Your task to perform on an android device: Is it going to rain today? Image 0: 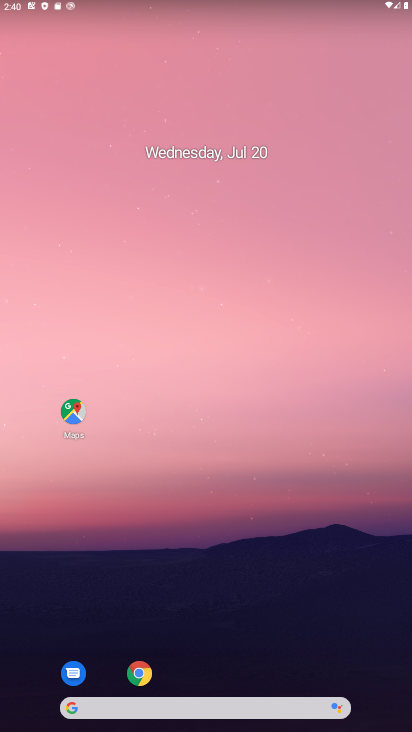
Step 0: drag from (269, 578) to (278, 193)
Your task to perform on an android device: Is it going to rain today? Image 1: 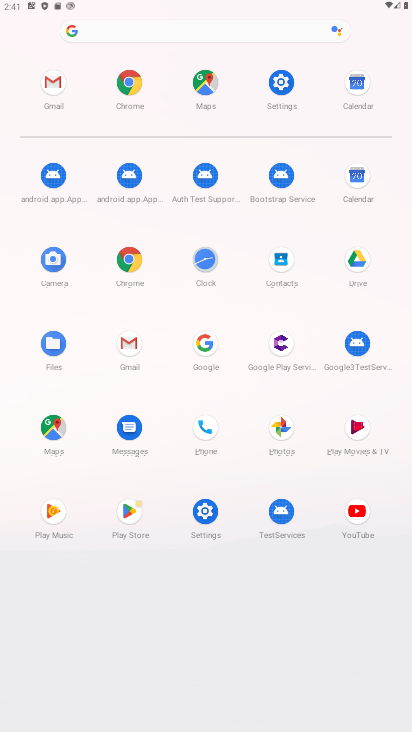
Step 1: click (263, 252)
Your task to perform on an android device: Is it going to rain today? Image 2: 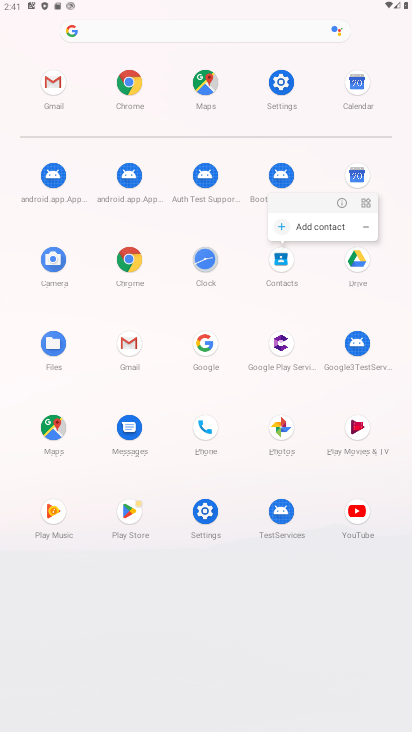
Step 2: click (260, 246)
Your task to perform on an android device: Is it going to rain today? Image 3: 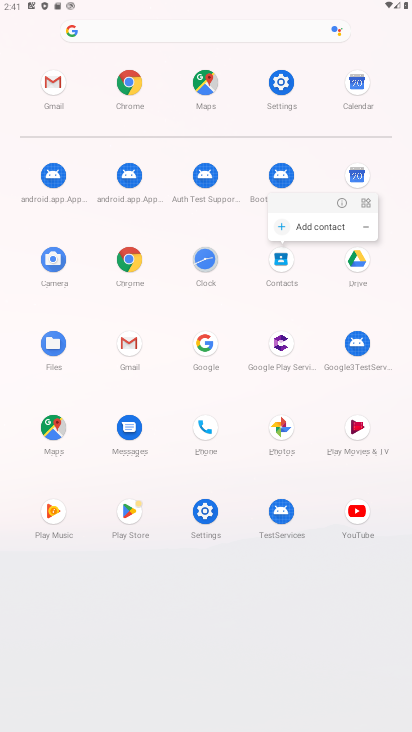
Step 3: drag from (156, 138) to (178, 561)
Your task to perform on an android device: Is it going to rain today? Image 4: 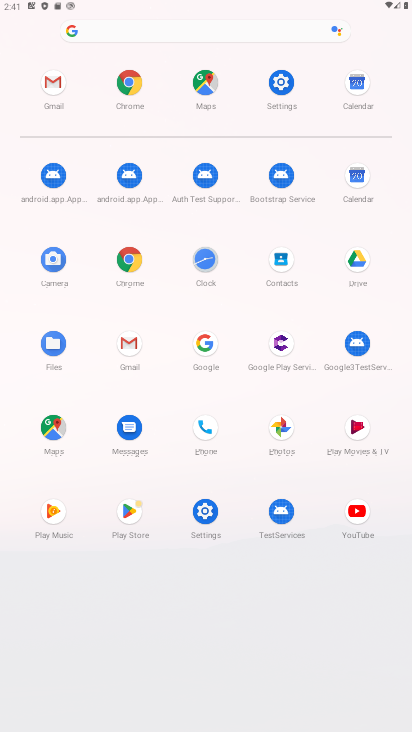
Step 4: press back button
Your task to perform on an android device: Is it going to rain today? Image 5: 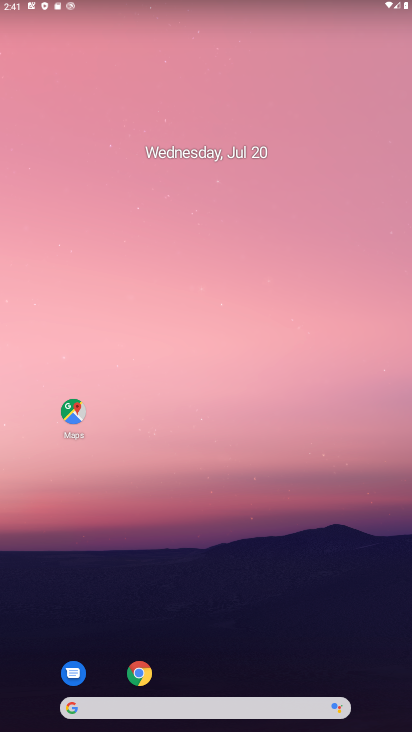
Step 5: drag from (24, 214) to (330, 281)
Your task to perform on an android device: Is it going to rain today? Image 6: 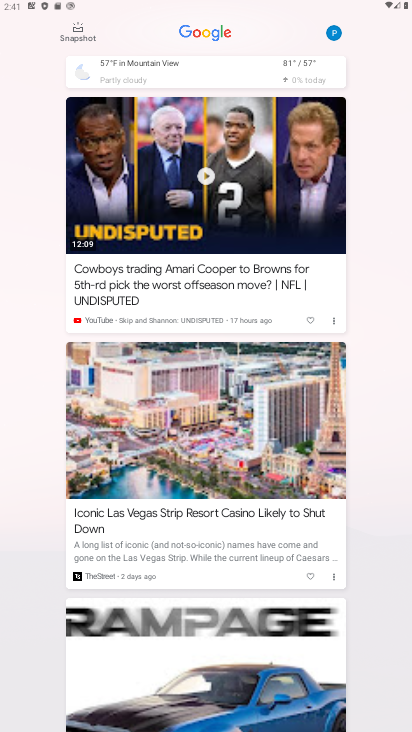
Step 6: click (306, 63)
Your task to perform on an android device: Is it going to rain today? Image 7: 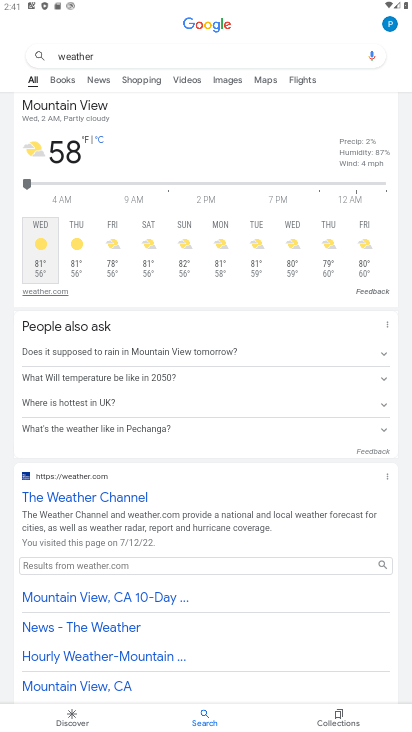
Step 7: task complete